Your task to perform on an android device: turn off data saver in the chrome app Image 0: 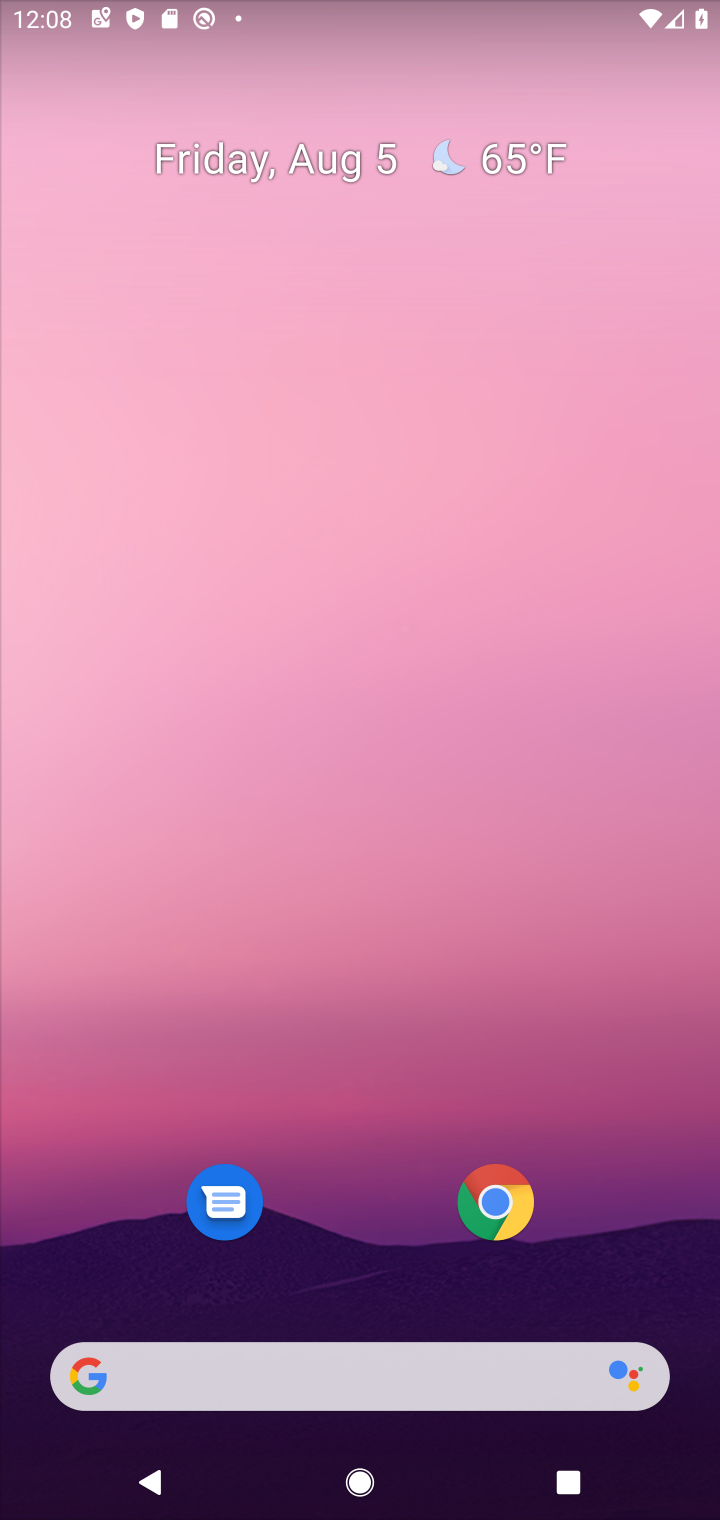
Step 0: press back button
Your task to perform on an android device: turn off data saver in the chrome app Image 1: 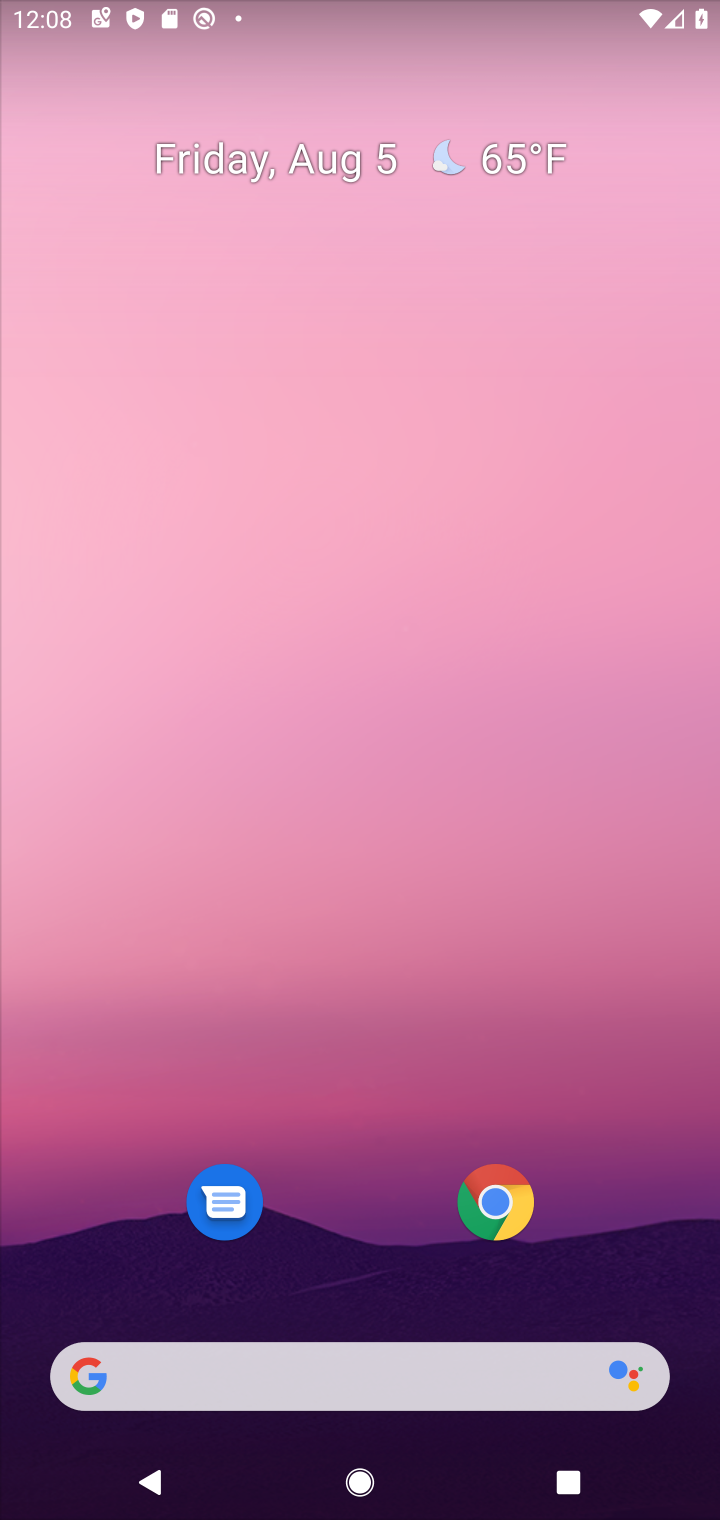
Step 1: drag from (179, 14) to (175, 1216)
Your task to perform on an android device: turn off data saver in the chrome app Image 2: 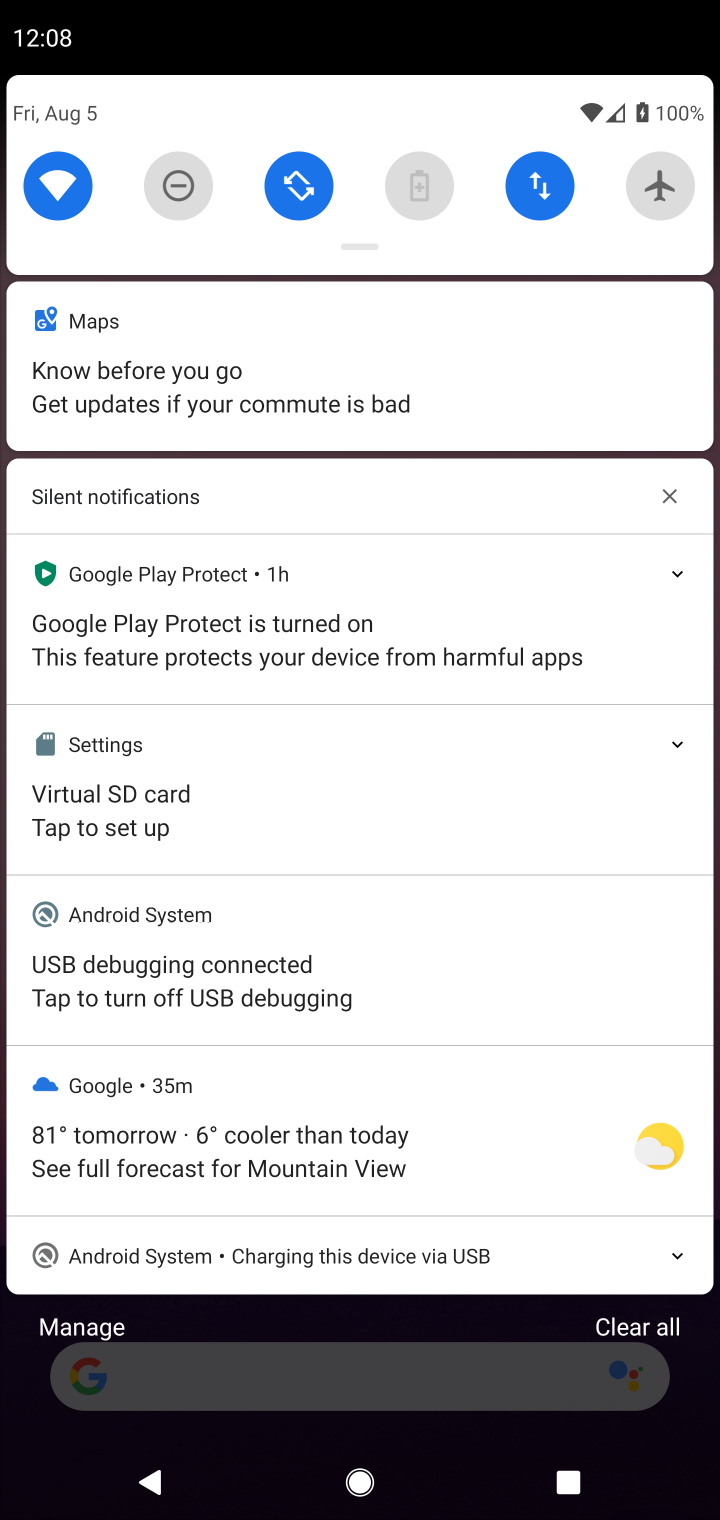
Step 2: drag from (362, 1197) to (468, 112)
Your task to perform on an android device: turn off data saver in the chrome app Image 3: 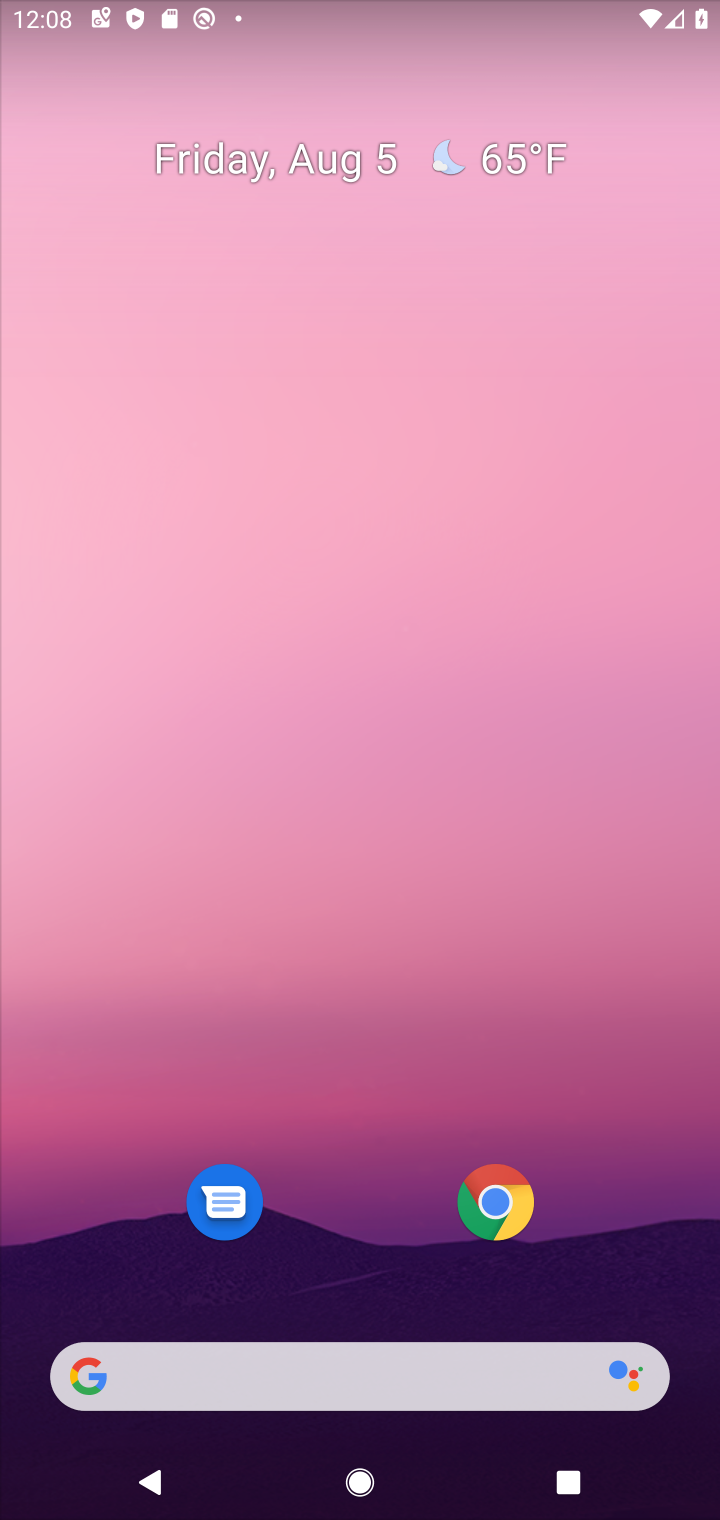
Step 3: click (500, 1217)
Your task to perform on an android device: turn off data saver in the chrome app Image 4: 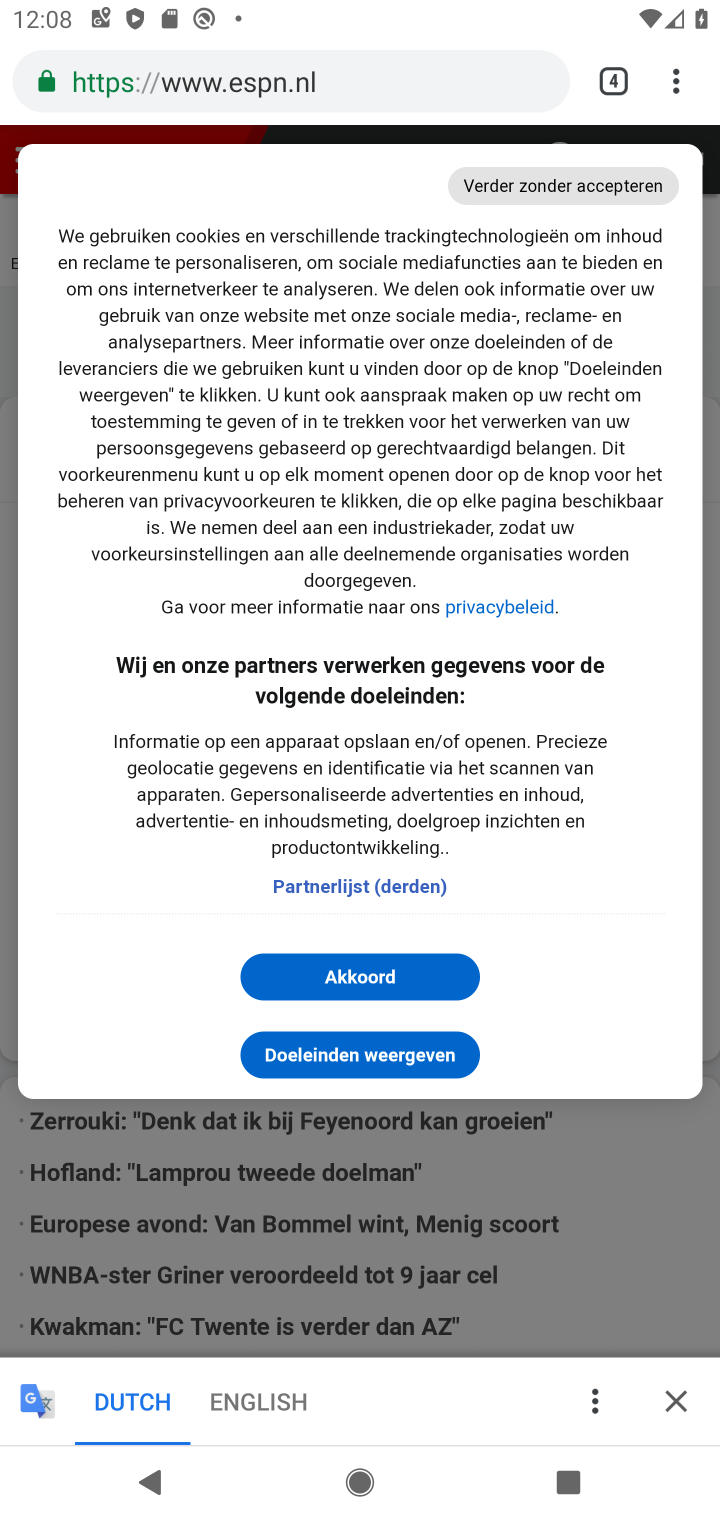
Step 4: drag from (675, 90) to (398, 974)
Your task to perform on an android device: turn off data saver in the chrome app Image 5: 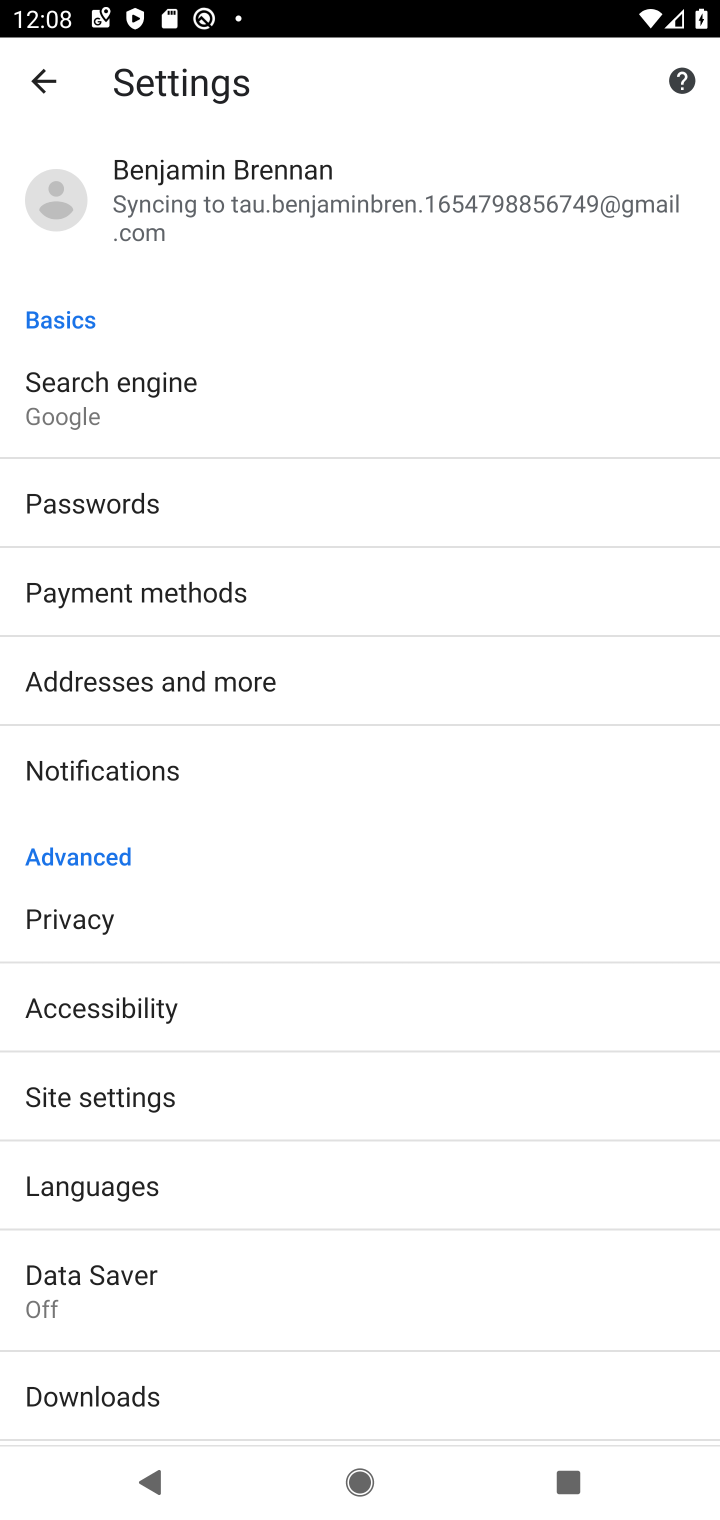
Step 5: click (124, 1265)
Your task to perform on an android device: turn off data saver in the chrome app Image 6: 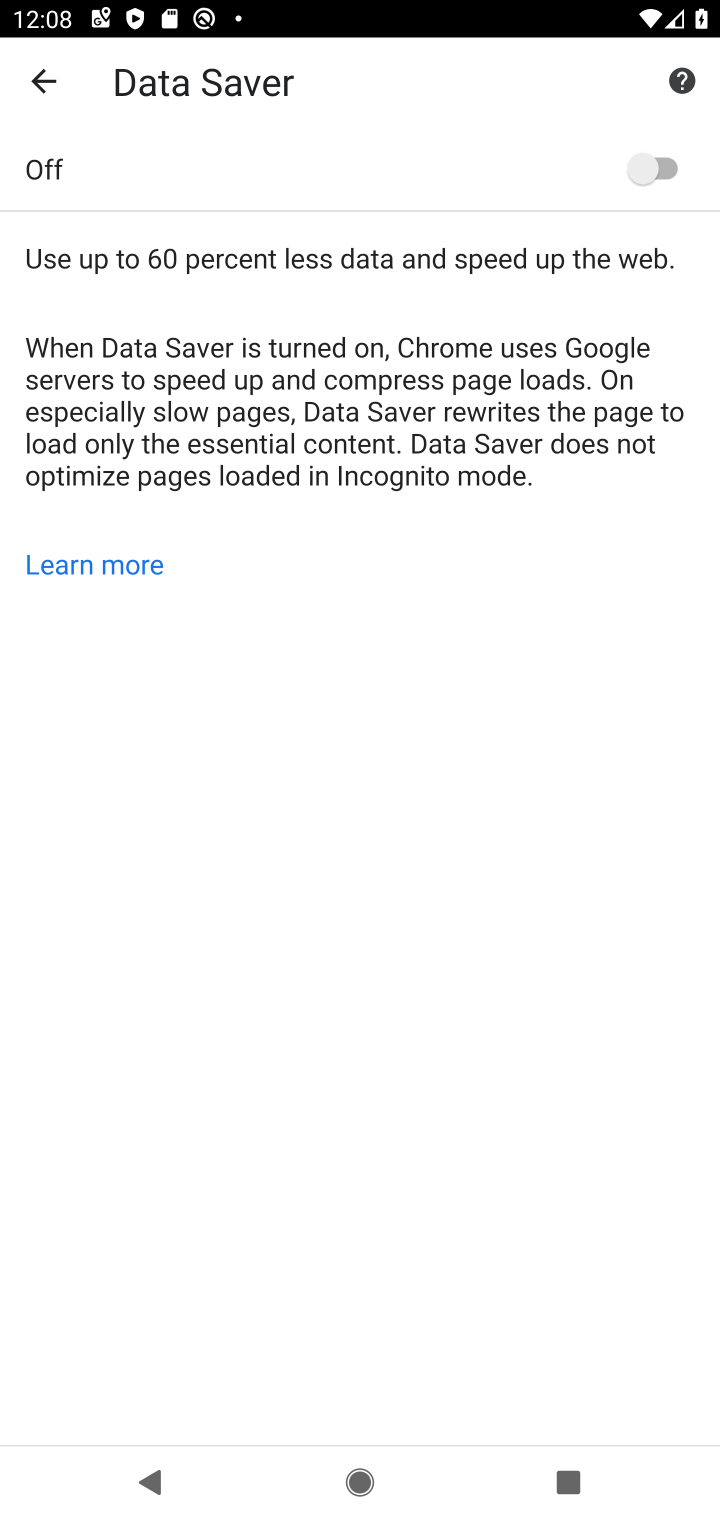
Step 6: task complete